Your task to perform on an android device: Go to Maps Image 0: 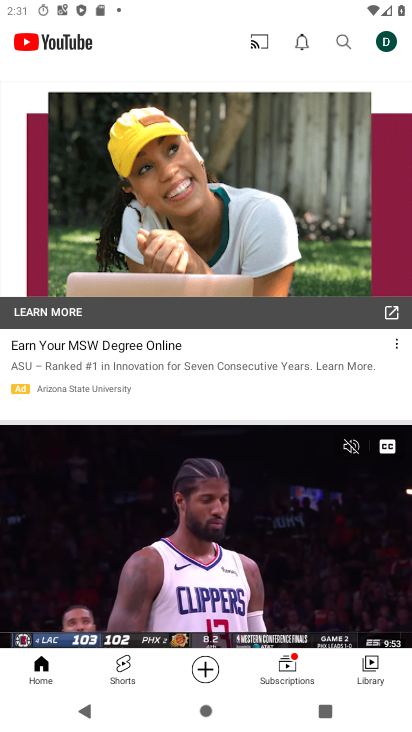
Step 0: press home button
Your task to perform on an android device: Go to Maps Image 1: 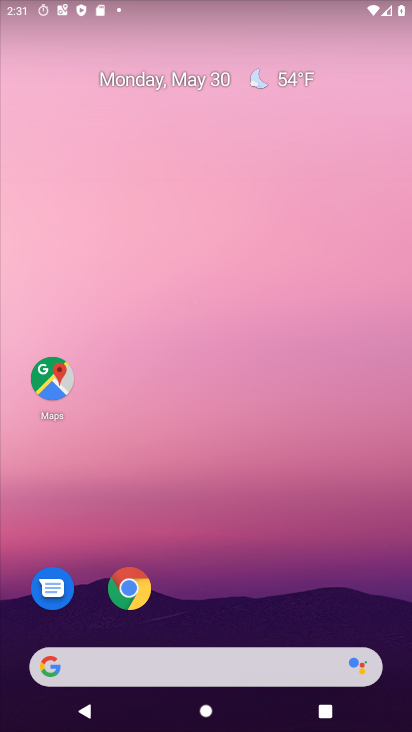
Step 1: click (51, 382)
Your task to perform on an android device: Go to Maps Image 2: 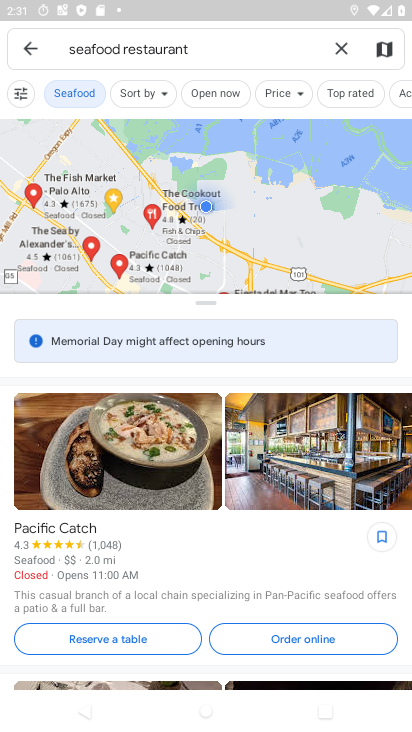
Step 2: task complete